Your task to perform on an android device: set default search engine in the chrome app Image 0: 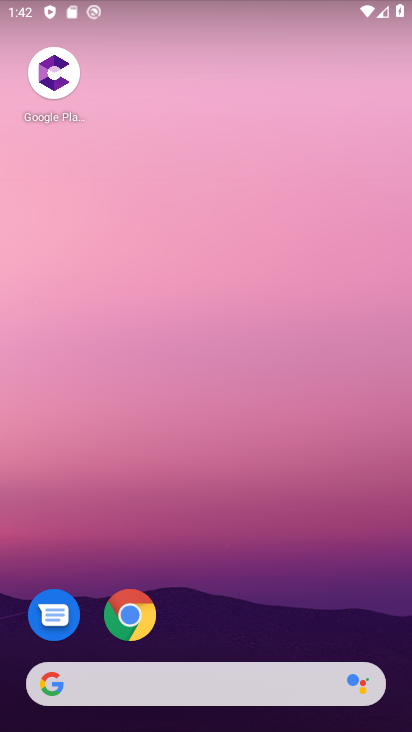
Step 0: drag from (338, 626) to (273, 65)
Your task to perform on an android device: set default search engine in the chrome app Image 1: 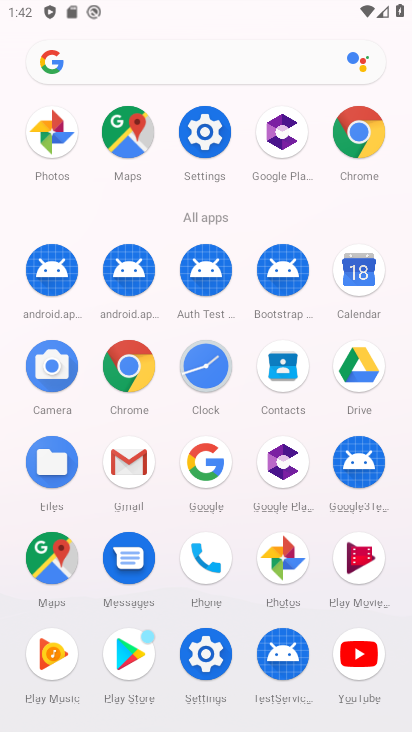
Step 1: click (126, 385)
Your task to perform on an android device: set default search engine in the chrome app Image 2: 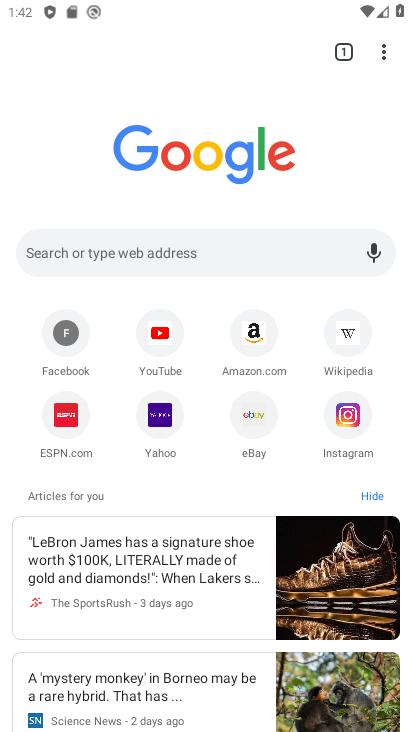
Step 2: click (384, 48)
Your task to perform on an android device: set default search engine in the chrome app Image 3: 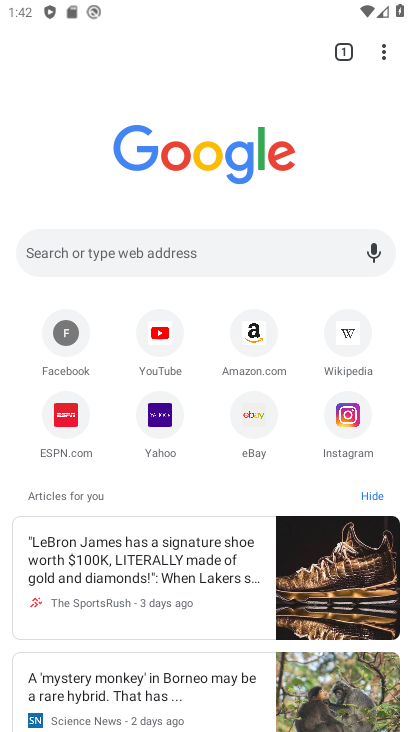
Step 3: click (381, 52)
Your task to perform on an android device: set default search engine in the chrome app Image 4: 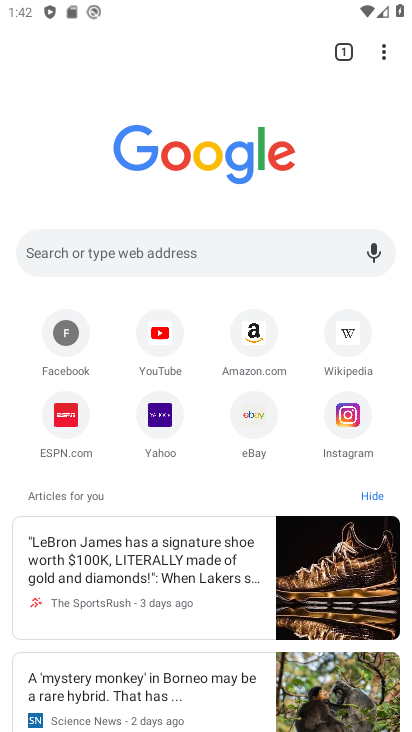
Step 4: click (383, 44)
Your task to perform on an android device: set default search engine in the chrome app Image 5: 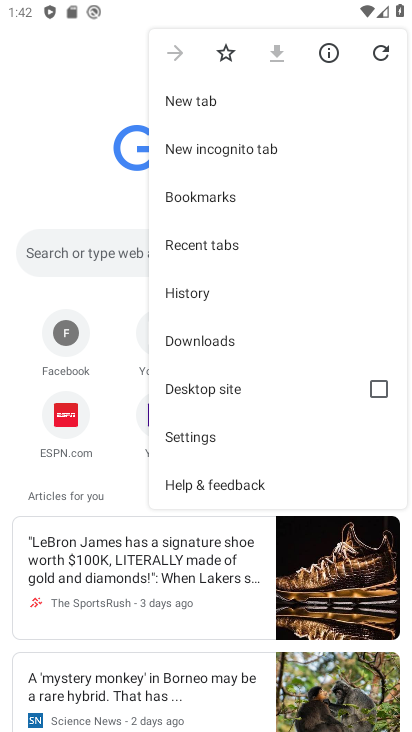
Step 5: click (196, 430)
Your task to perform on an android device: set default search engine in the chrome app Image 6: 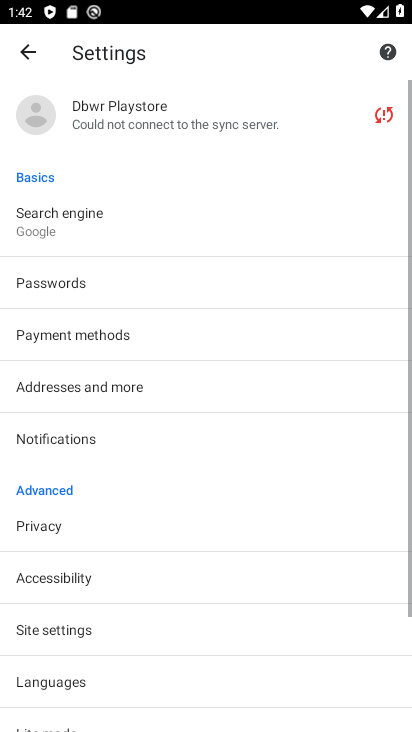
Step 6: click (121, 221)
Your task to perform on an android device: set default search engine in the chrome app Image 7: 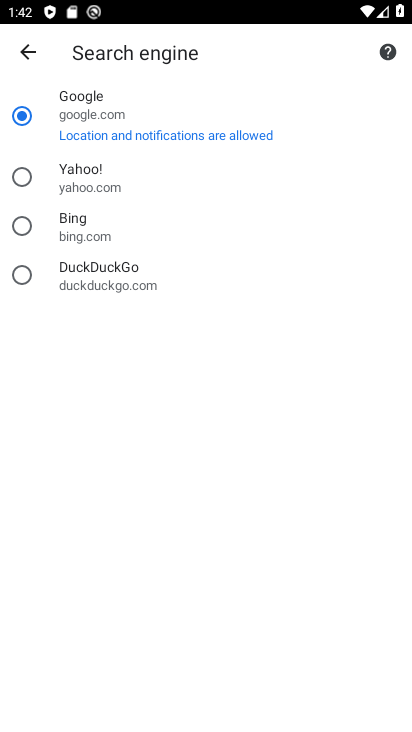
Step 7: click (94, 212)
Your task to perform on an android device: set default search engine in the chrome app Image 8: 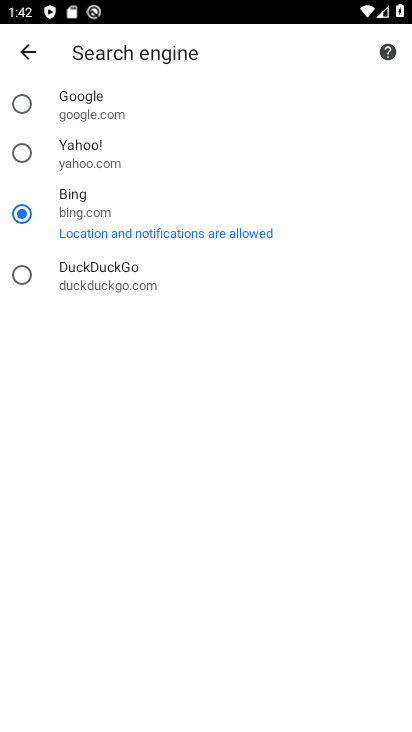
Step 8: task complete